Your task to perform on an android device: Go to calendar. Show me events next week Image 0: 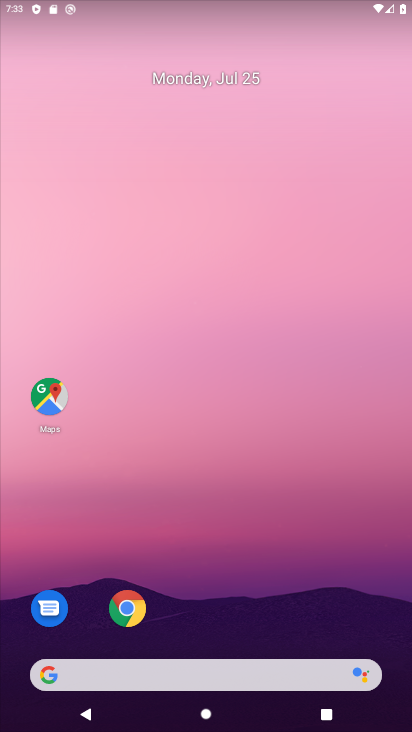
Step 0: drag from (175, 538) to (400, 172)
Your task to perform on an android device: Go to calendar. Show me events next week Image 1: 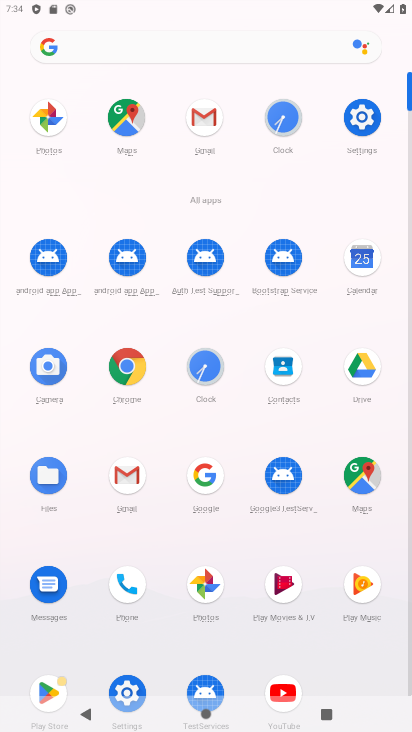
Step 1: click (358, 254)
Your task to perform on an android device: Go to calendar. Show me events next week Image 2: 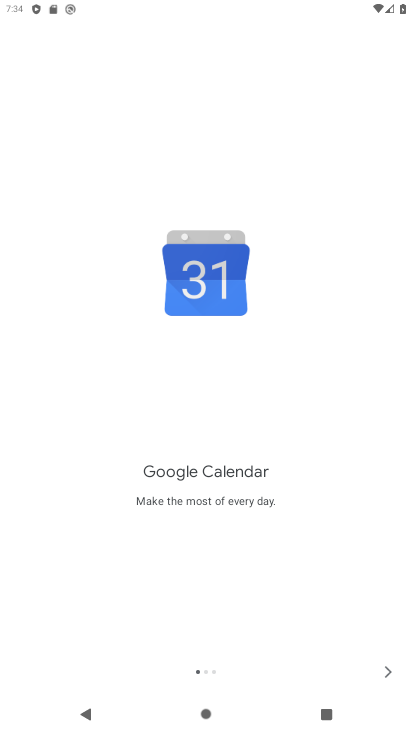
Step 2: click (392, 667)
Your task to perform on an android device: Go to calendar. Show me events next week Image 3: 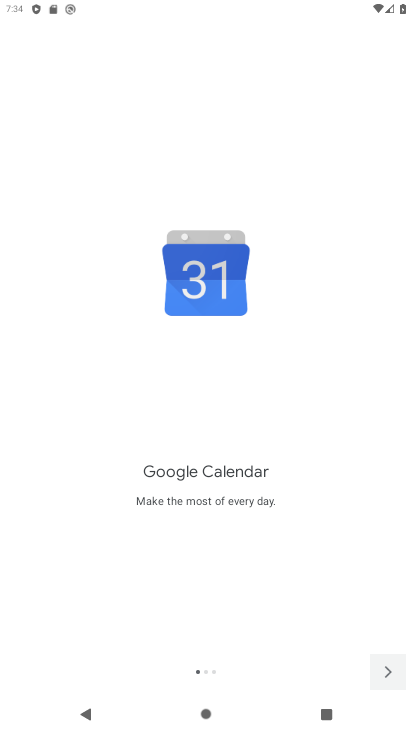
Step 3: click (388, 667)
Your task to perform on an android device: Go to calendar. Show me events next week Image 4: 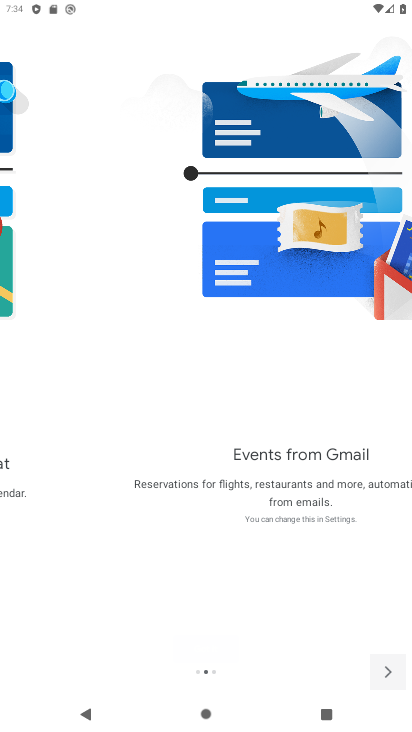
Step 4: click (388, 667)
Your task to perform on an android device: Go to calendar. Show me events next week Image 5: 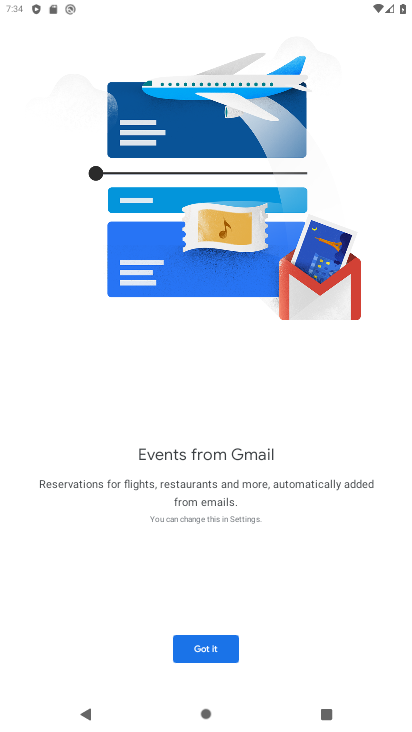
Step 5: click (387, 667)
Your task to perform on an android device: Go to calendar. Show me events next week Image 6: 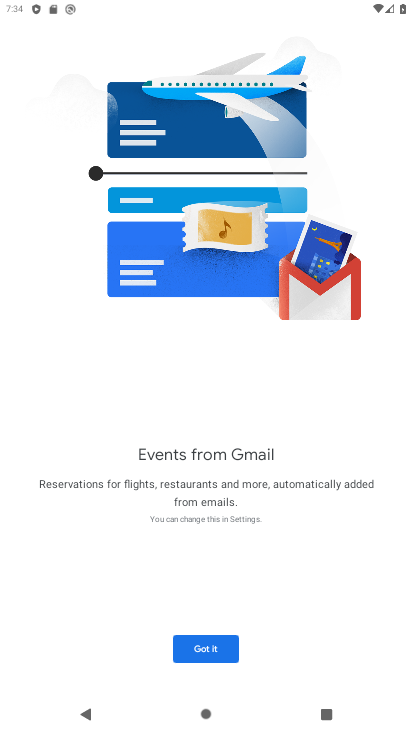
Step 6: click (226, 649)
Your task to perform on an android device: Go to calendar. Show me events next week Image 7: 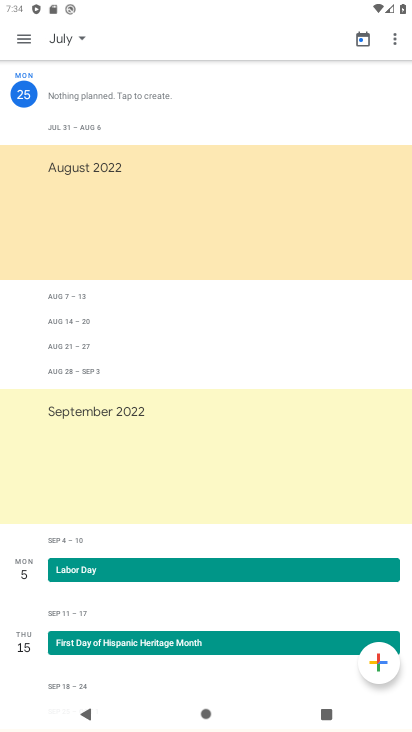
Step 7: drag from (174, 516) to (233, 58)
Your task to perform on an android device: Go to calendar. Show me events next week Image 8: 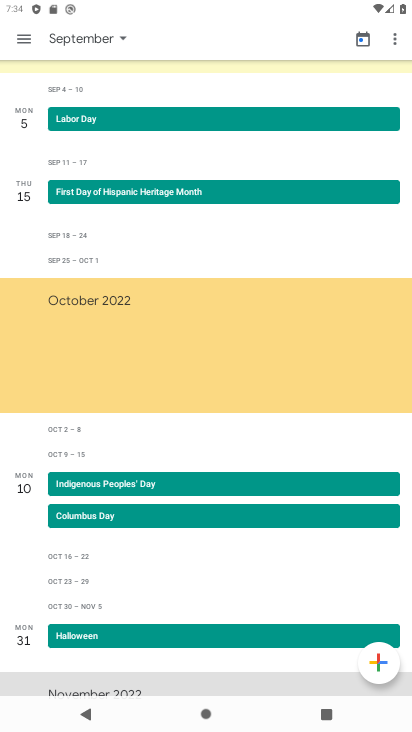
Step 8: click (355, 33)
Your task to perform on an android device: Go to calendar. Show me events next week Image 9: 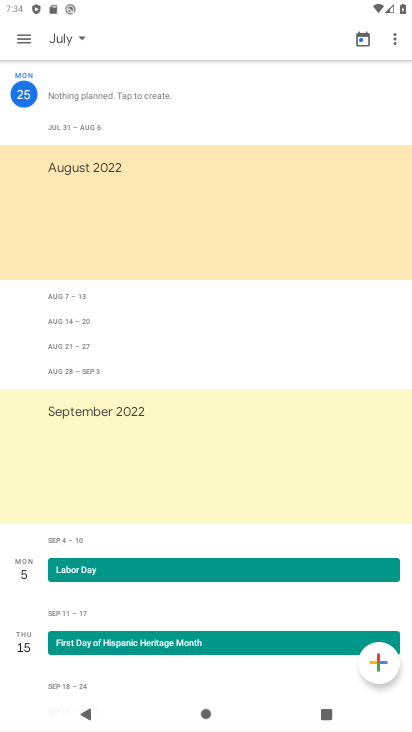
Step 9: click (64, 31)
Your task to perform on an android device: Go to calendar. Show me events next week Image 10: 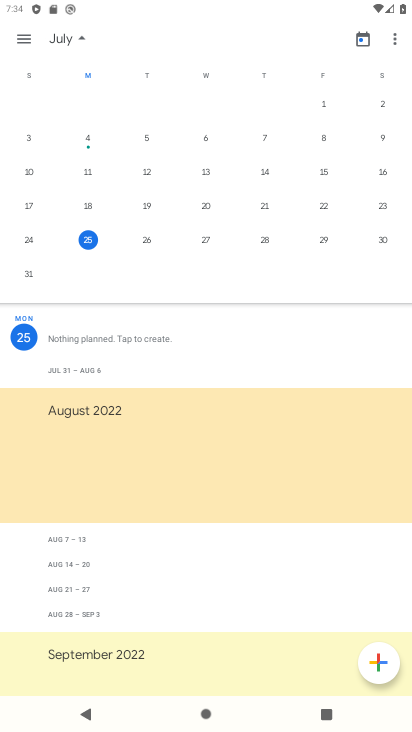
Step 10: click (21, 276)
Your task to perform on an android device: Go to calendar. Show me events next week Image 11: 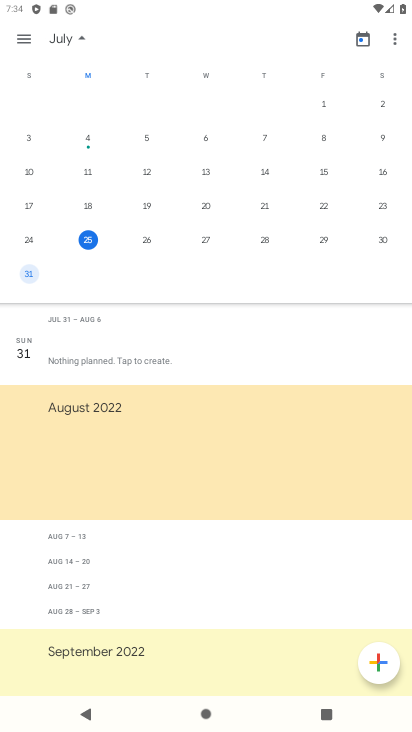
Step 11: task complete